Your task to perform on an android device: turn off notifications settings in the gmail app Image 0: 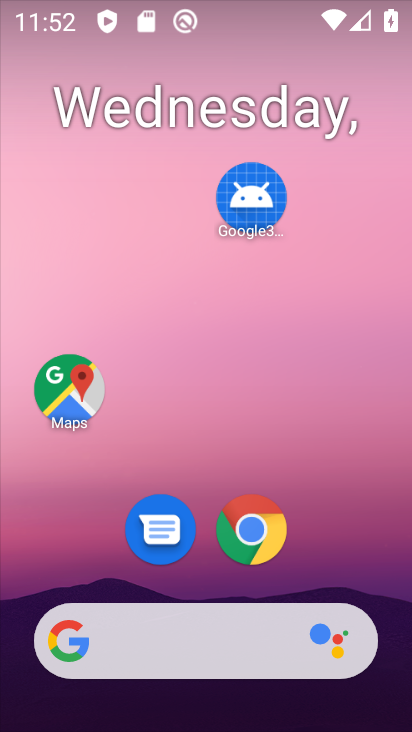
Step 0: drag from (78, 612) to (161, 119)
Your task to perform on an android device: turn off notifications settings in the gmail app Image 1: 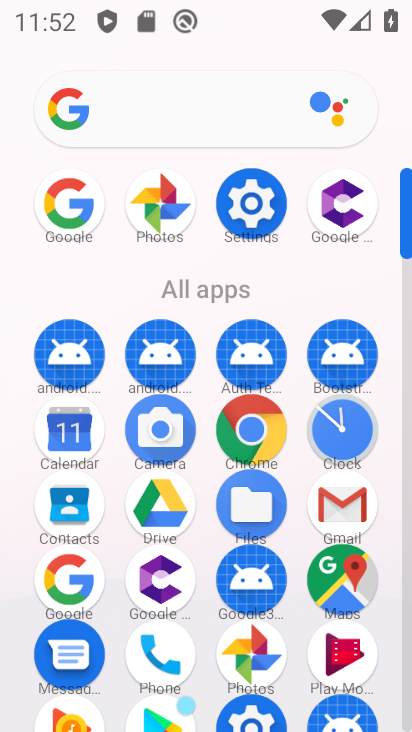
Step 1: click (349, 510)
Your task to perform on an android device: turn off notifications settings in the gmail app Image 2: 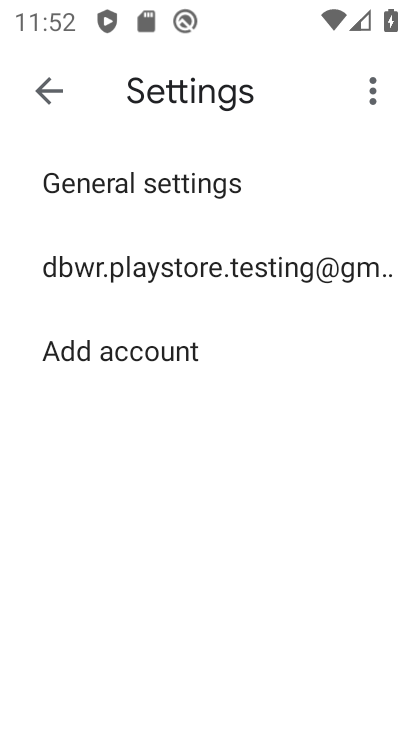
Step 2: click (209, 278)
Your task to perform on an android device: turn off notifications settings in the gmail app Image 3: 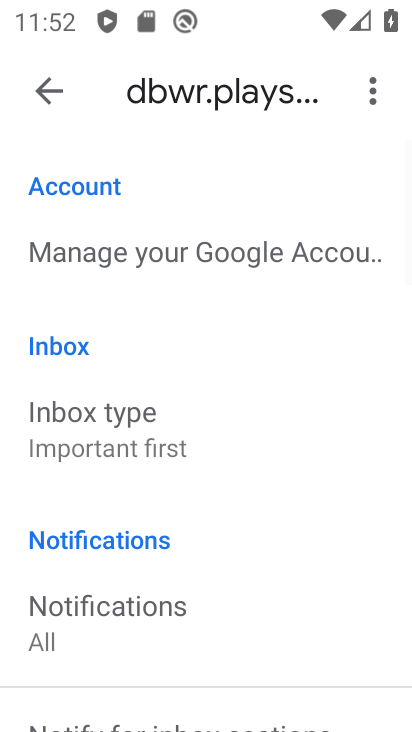
Step 3: drag from (173, 613) to (271, 200)
Your task to perform on an android device: turn off notifications settings in the gmail app Image 4: 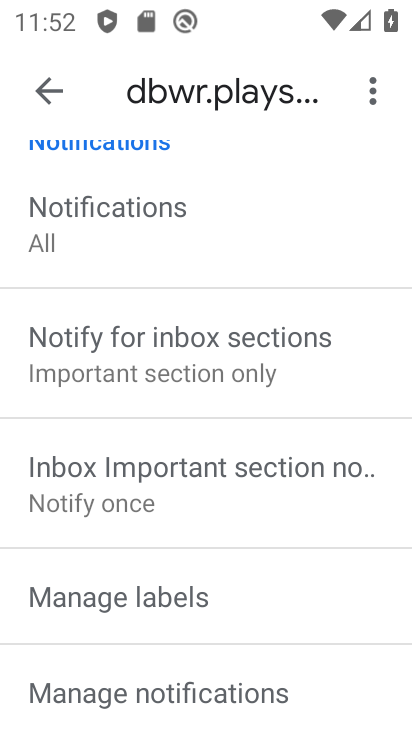
Step 4: click (197, 688)
Your task to perform on an android device: turn off notifications settings in the gmail app Image 5: 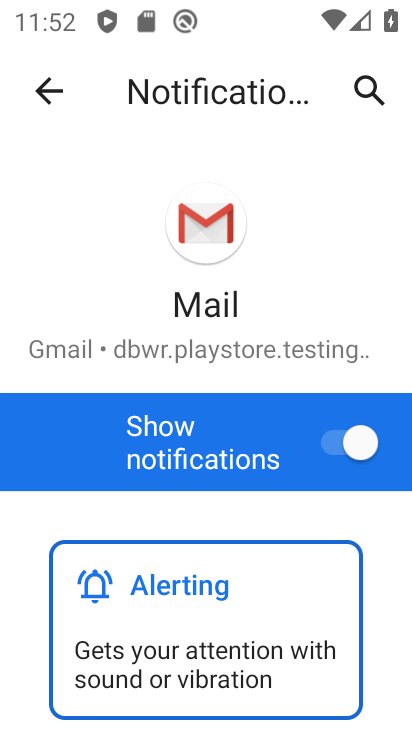
Step 5: click (330, 449)
Your task to perform on an android device: turn off notifications settings in the gmail app Image 6: 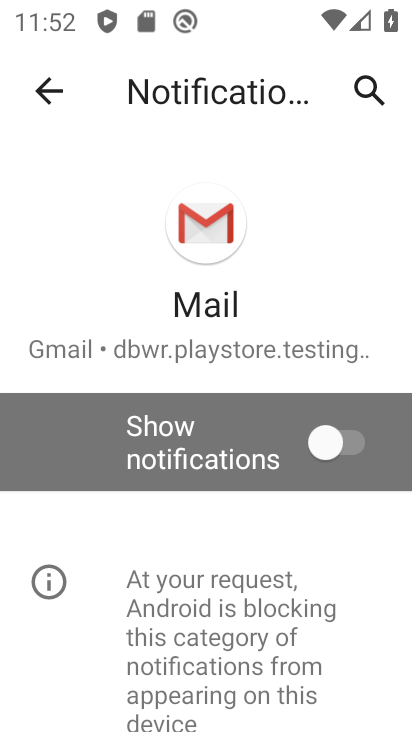
Step 6: task complete